Your task to perform on an android device: set default search engine in the chrome app Image 0: 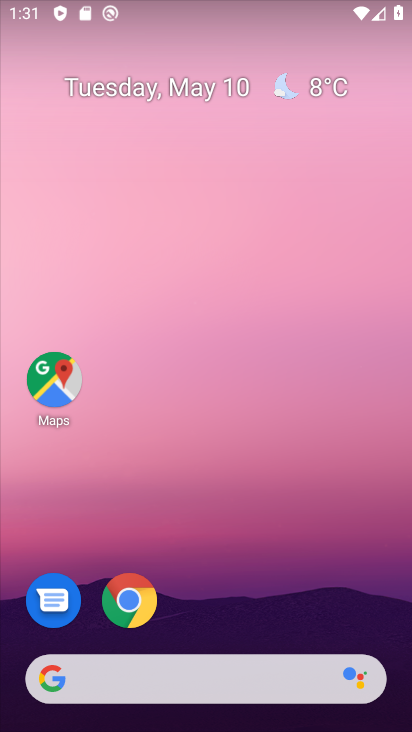
Step 0: click (132, 595)
Your task to perform on an android device: set default search engine in the chrome app Image 1: 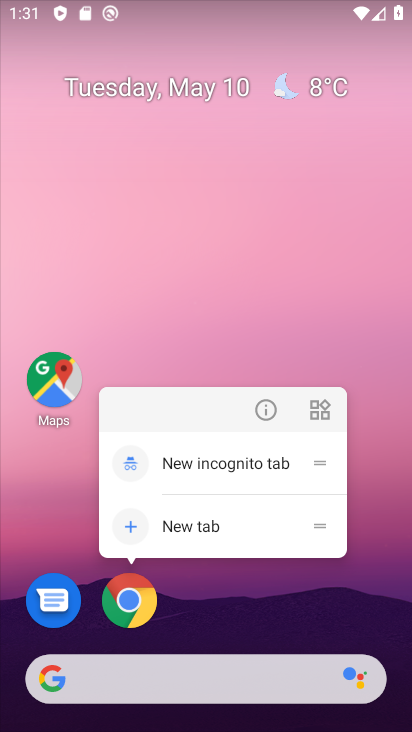
Step 1: click (185, 585)
Your task to perform on an android device: set default search engine in the chrome app Image 2: 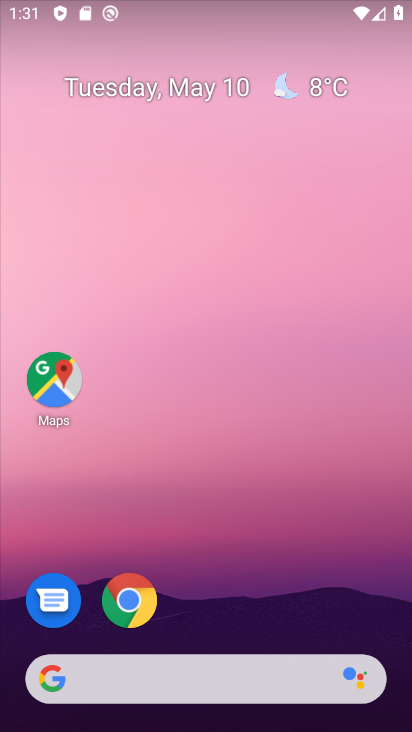
Step 2: click (120, 598)
Your task to perform on an android device: set default search engine in the chrome app Image 3: 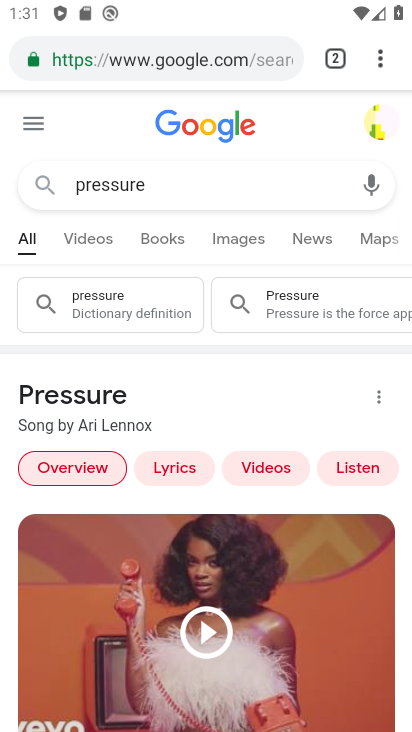
Step 3: click (380, 51)
Your task to perform on an android device: set default search engine in the chrome app Image 4: 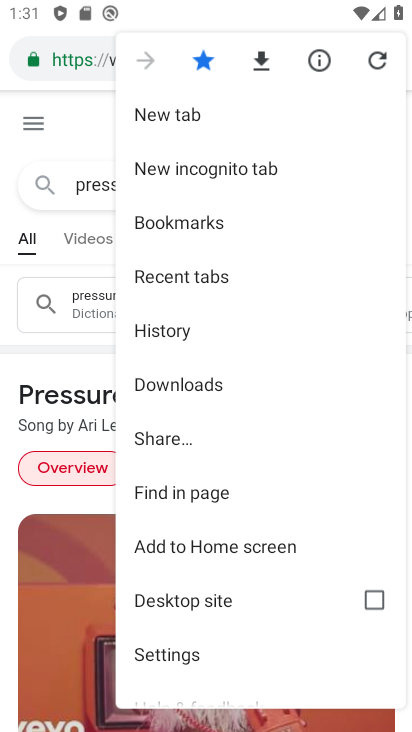
Step 4: click (204, 650)
Your task to perform on an android device: set default search engine in the chrome app Image 5: 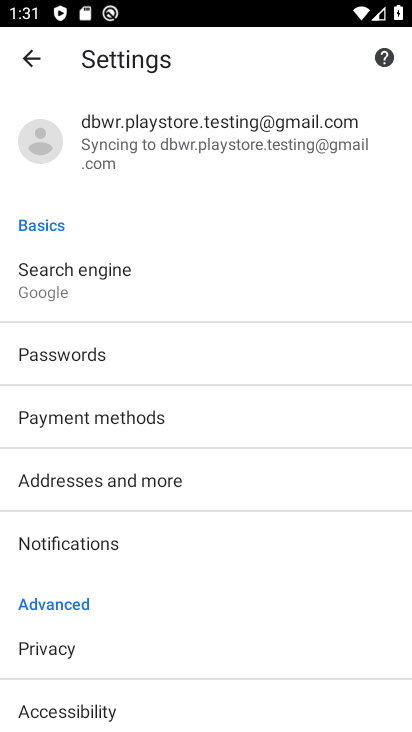
Step 5: click (110, 288)
Your task to perform on an android device: set default search engine in the chrome app Image 6: 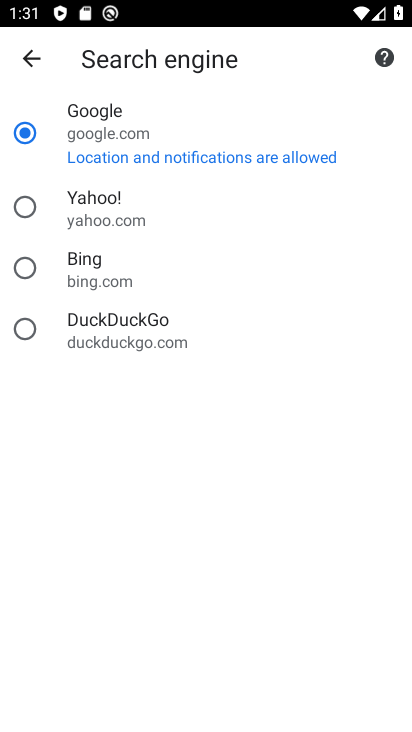
Step 6: click (31, 206)
Your task to perform on an android device: set default search engine in the chrome app Image 7: 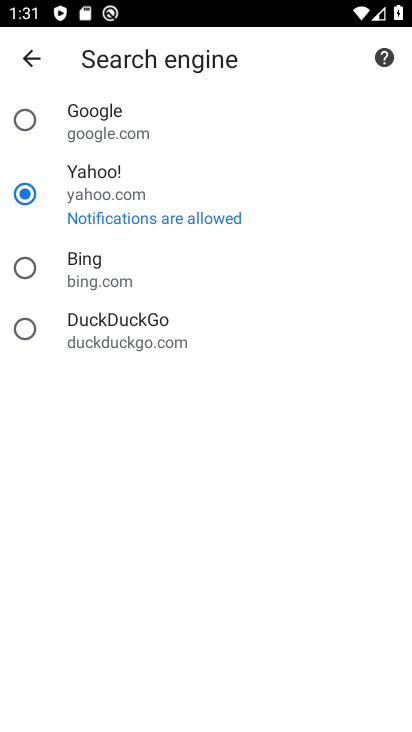
Step 7: task complete